Your task to perform on an android device: Go to privacy settings Image 0: 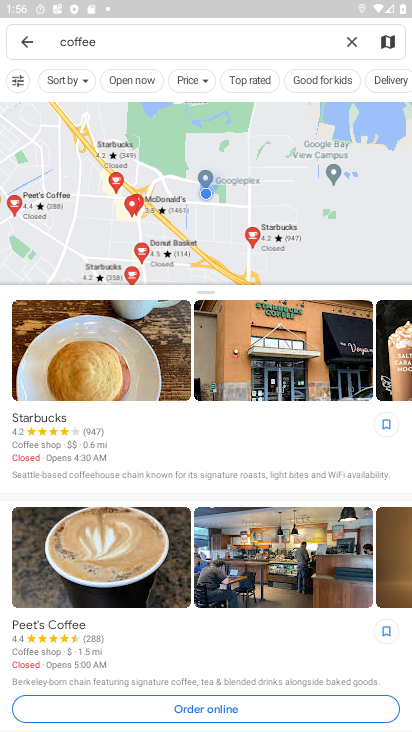
Step 0: press home button
Your task to perform on an android device: Go to privacy settings Image 1: 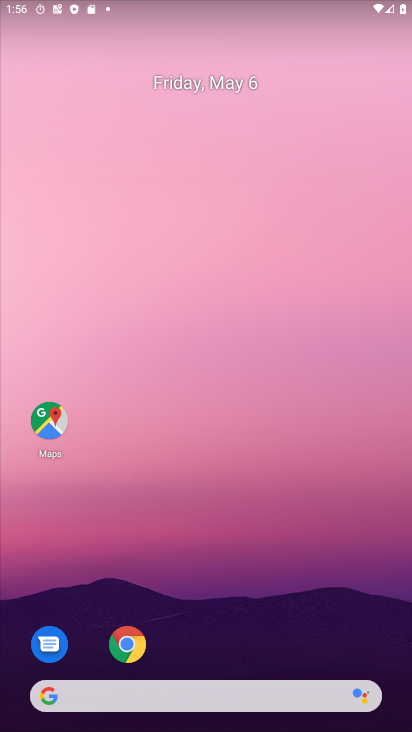
Step 1: drag from (255, 701) to (287, 81)
Your task to perform on an android device: Go to privacy settings Image 2: 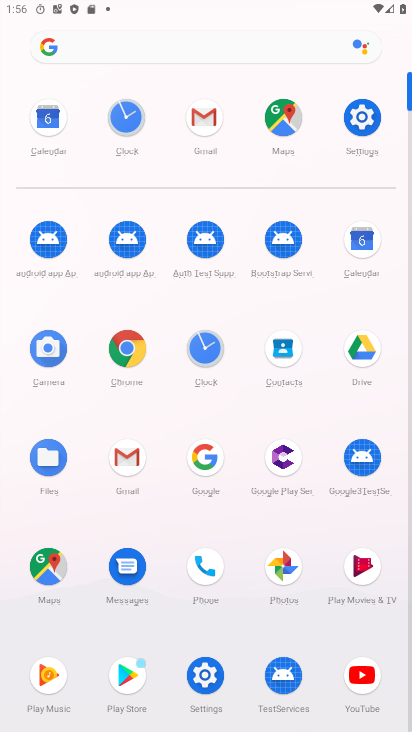
Step 2: click (350, 113)
Your task to perform on an android device: Go to privacy settings Image 3: 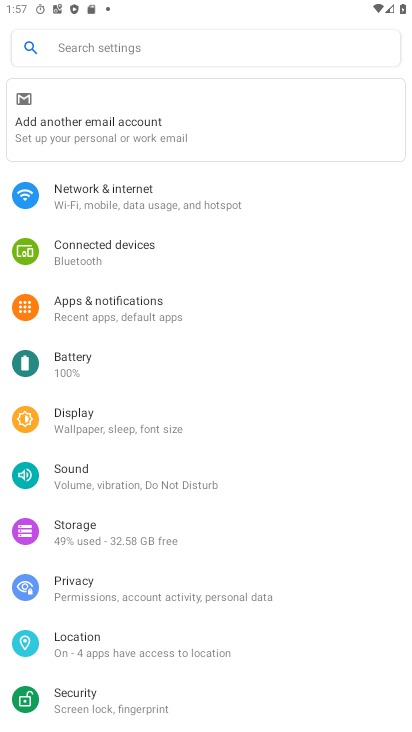
Step 3: click (163, 603)
Your task to perform on an android device: Go to privacy settings Image 4: 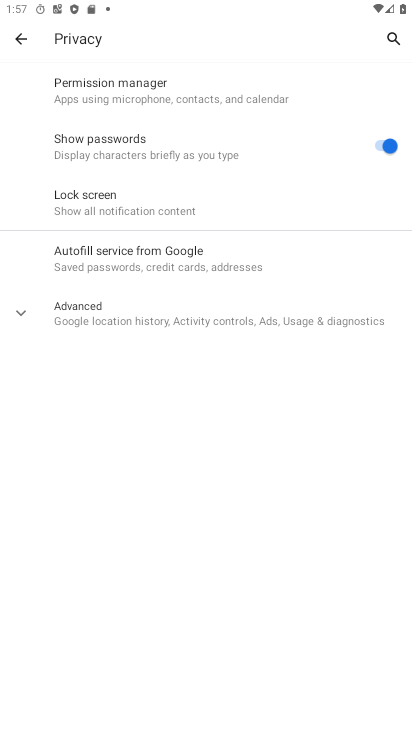
Step 4: task complete